Your task to perform on an android device: When is my next appointment? Image 0: 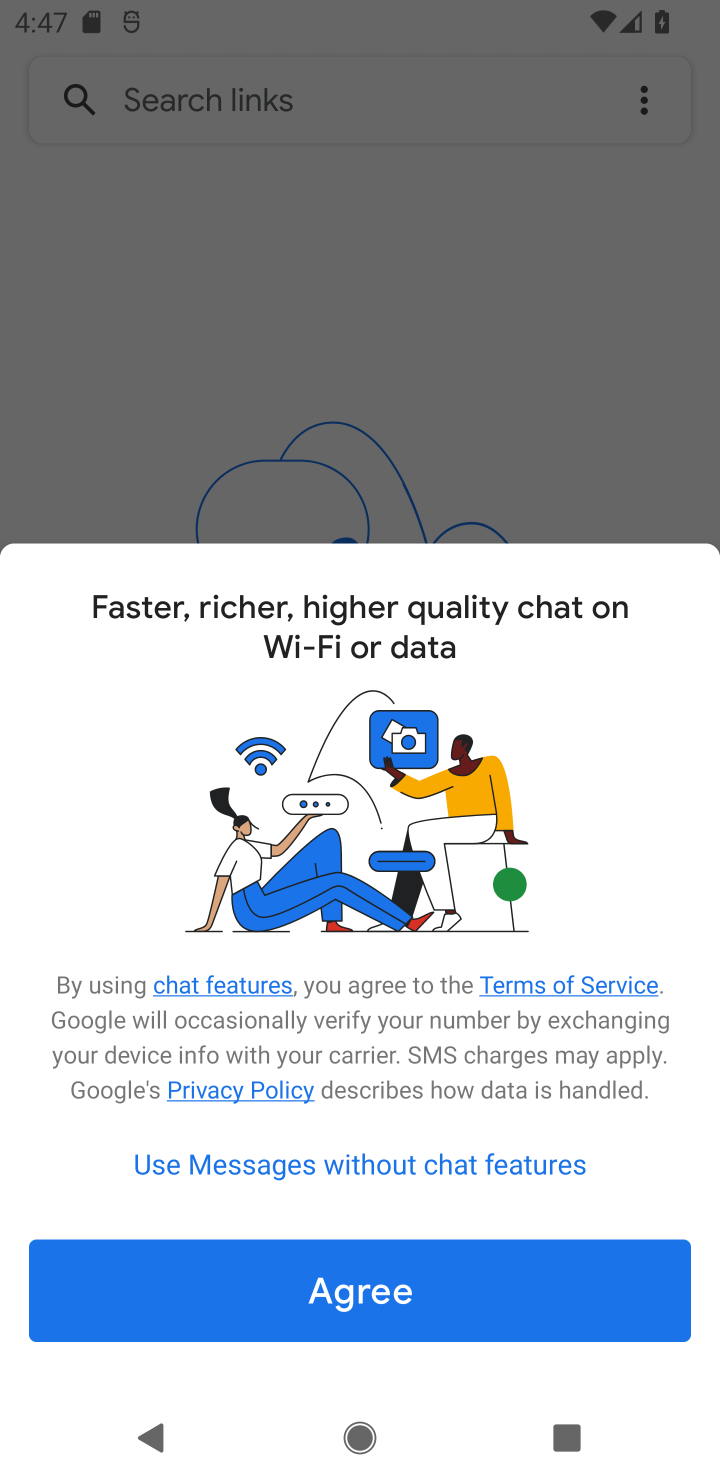
Step 0: press home button
Your task to perform on an android device: When is my next appointment? Image 1: 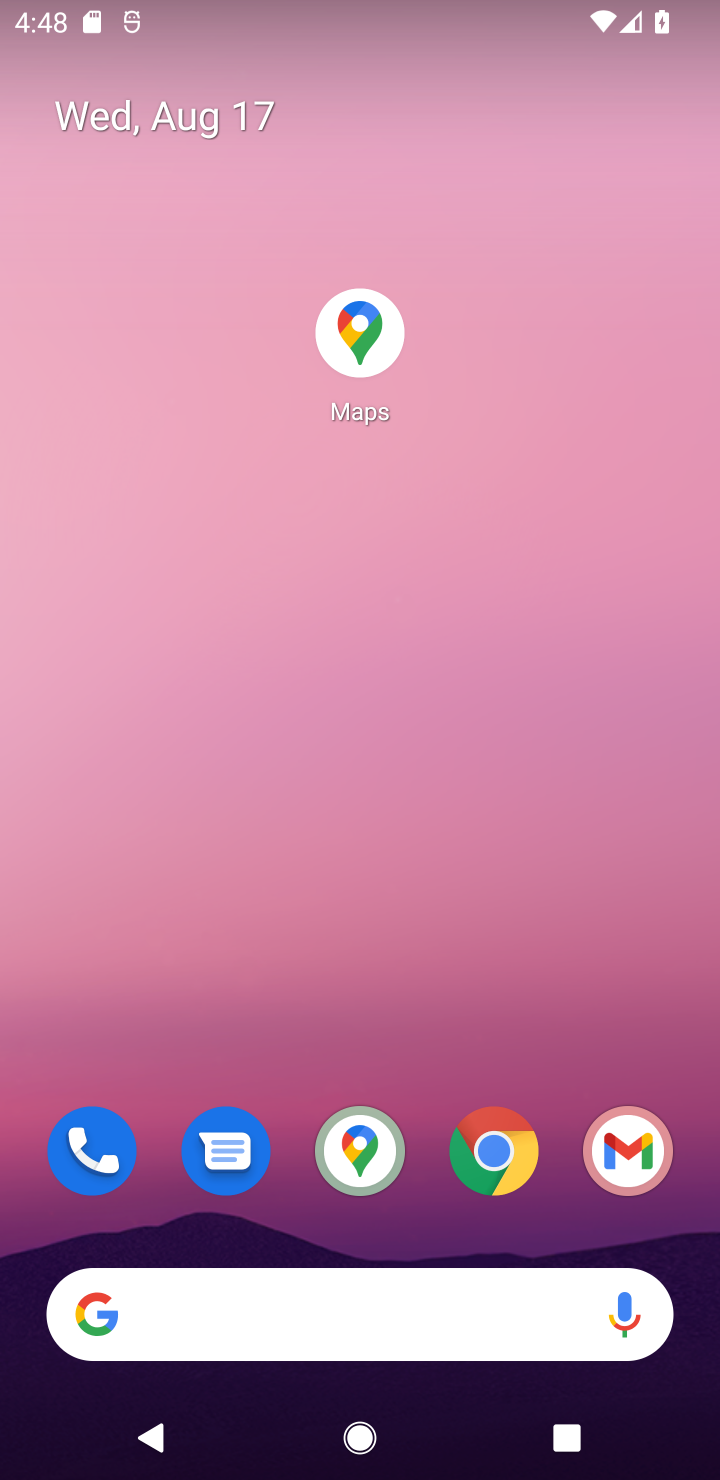
Step 1: drag from (373, 1185) to (544, 155)
Your task to perform on an android device: When is my next appointment? Image 2: 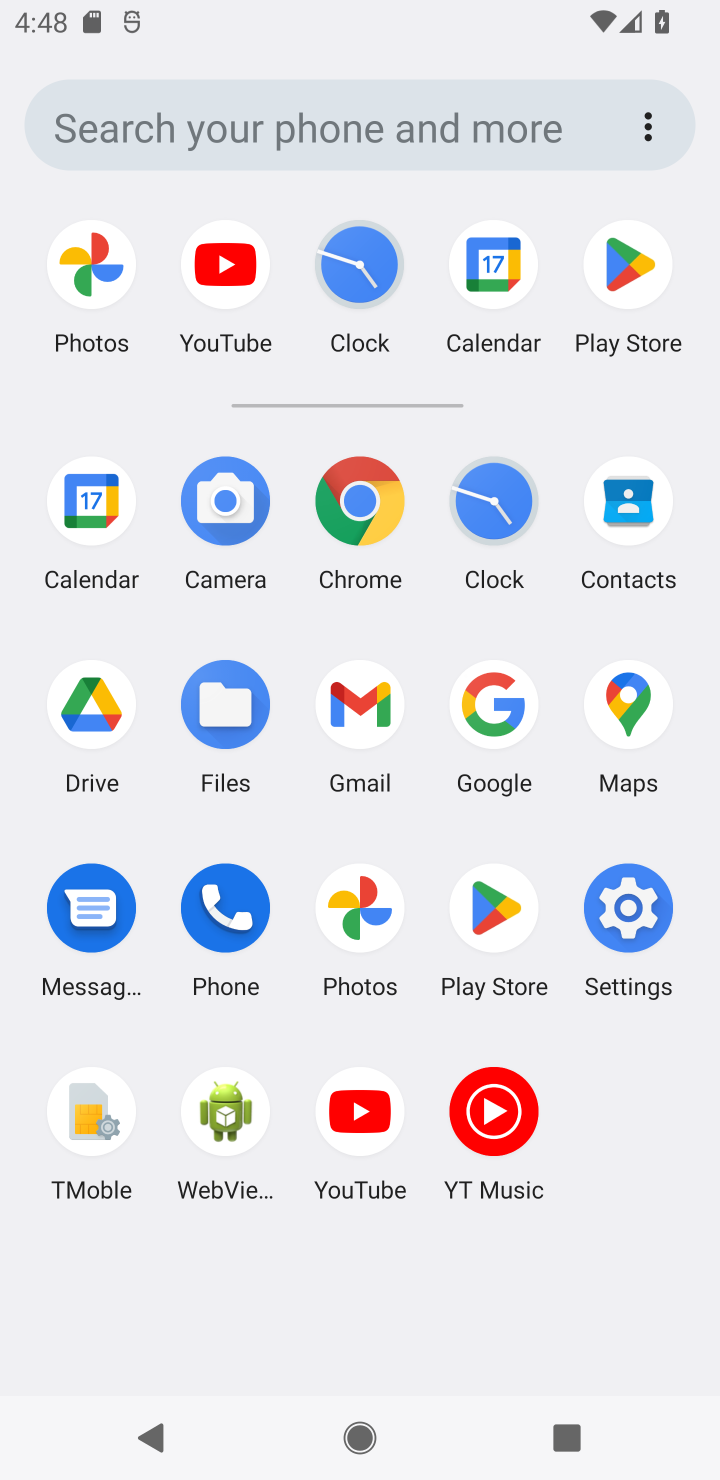
Step 2: click (472, 229)
Your task to perform on an android device: When is my next appointment? Image 3: 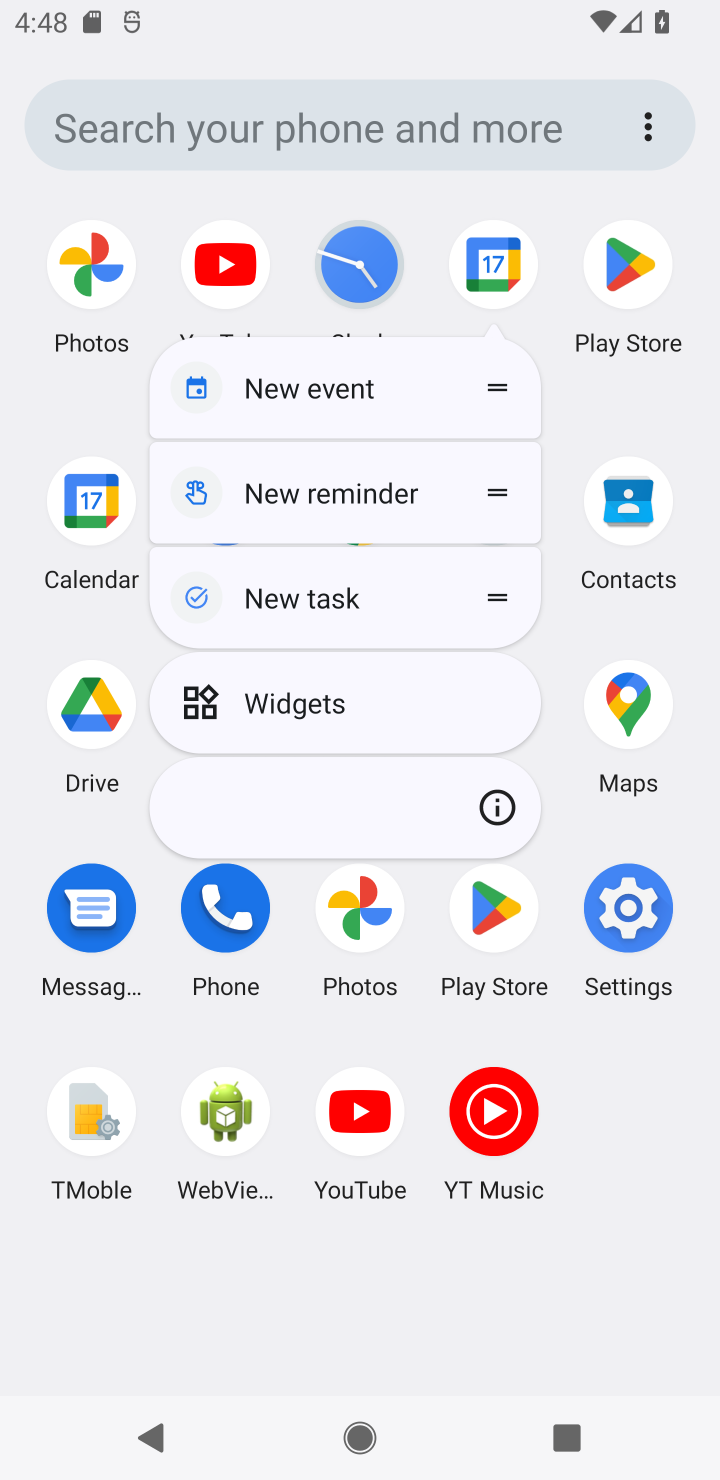
Step 3: click (492, 269)
Your task to perform on an android device: When is my next appointment? Image 4: 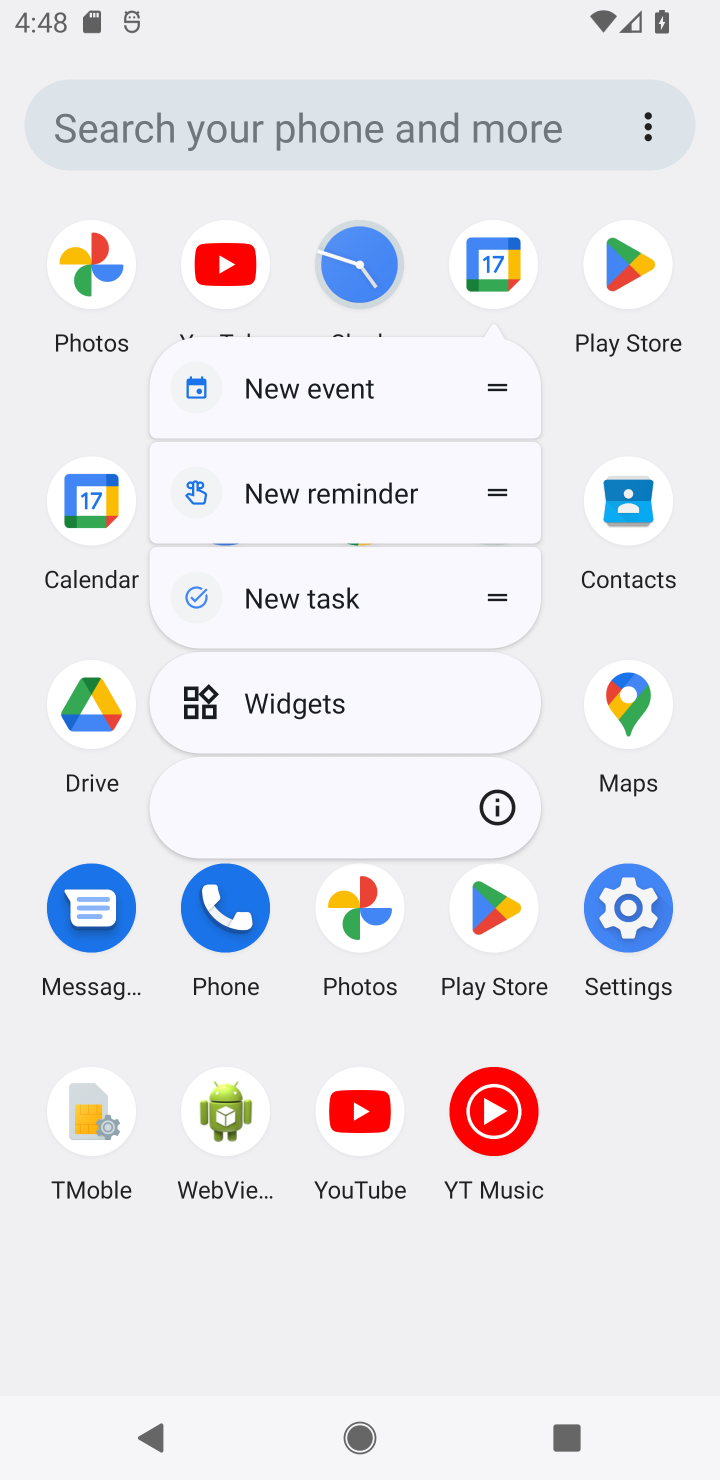
Step 4: click (492, 269)
Your task to perform on an android device: When is my next appointment? Image 5: 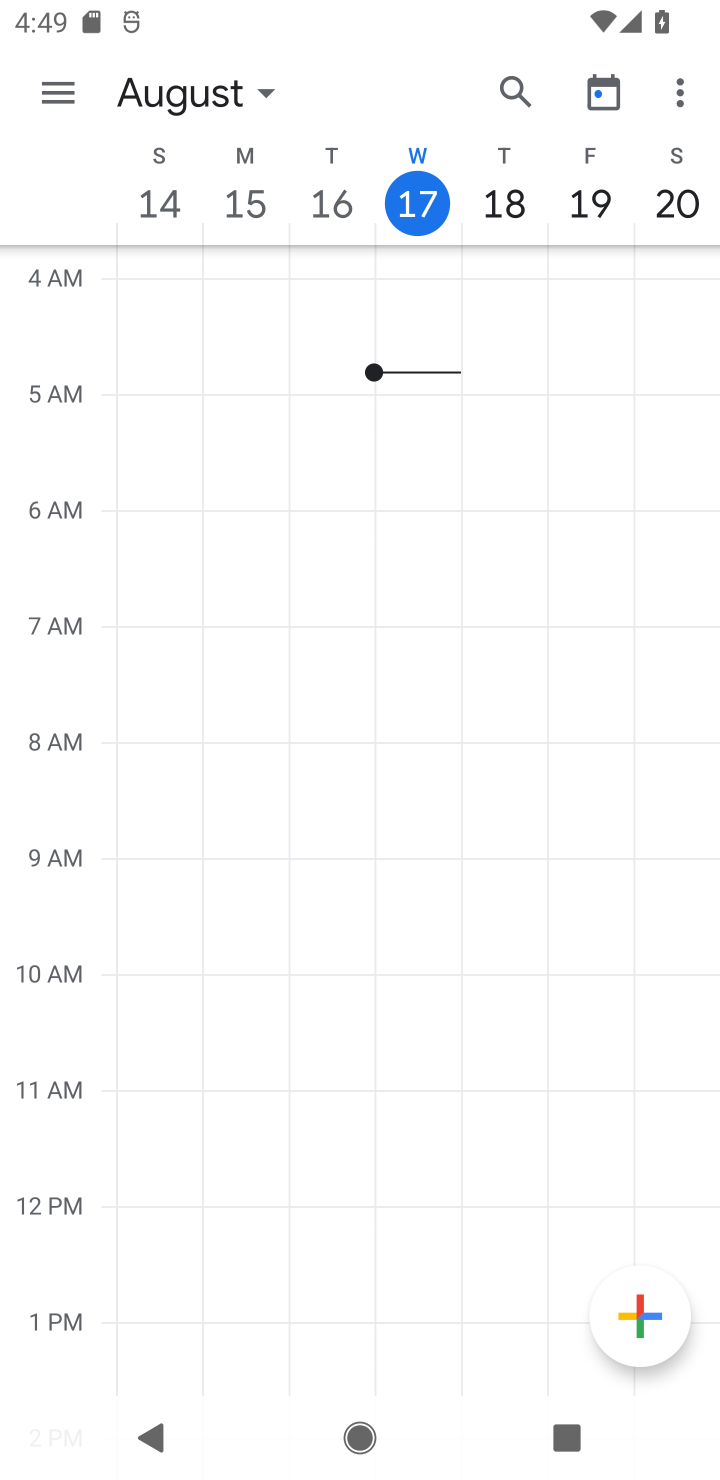
Step 5: click (30, 88)
Your task to perform on an android device: When is my next appointment? Image 6: 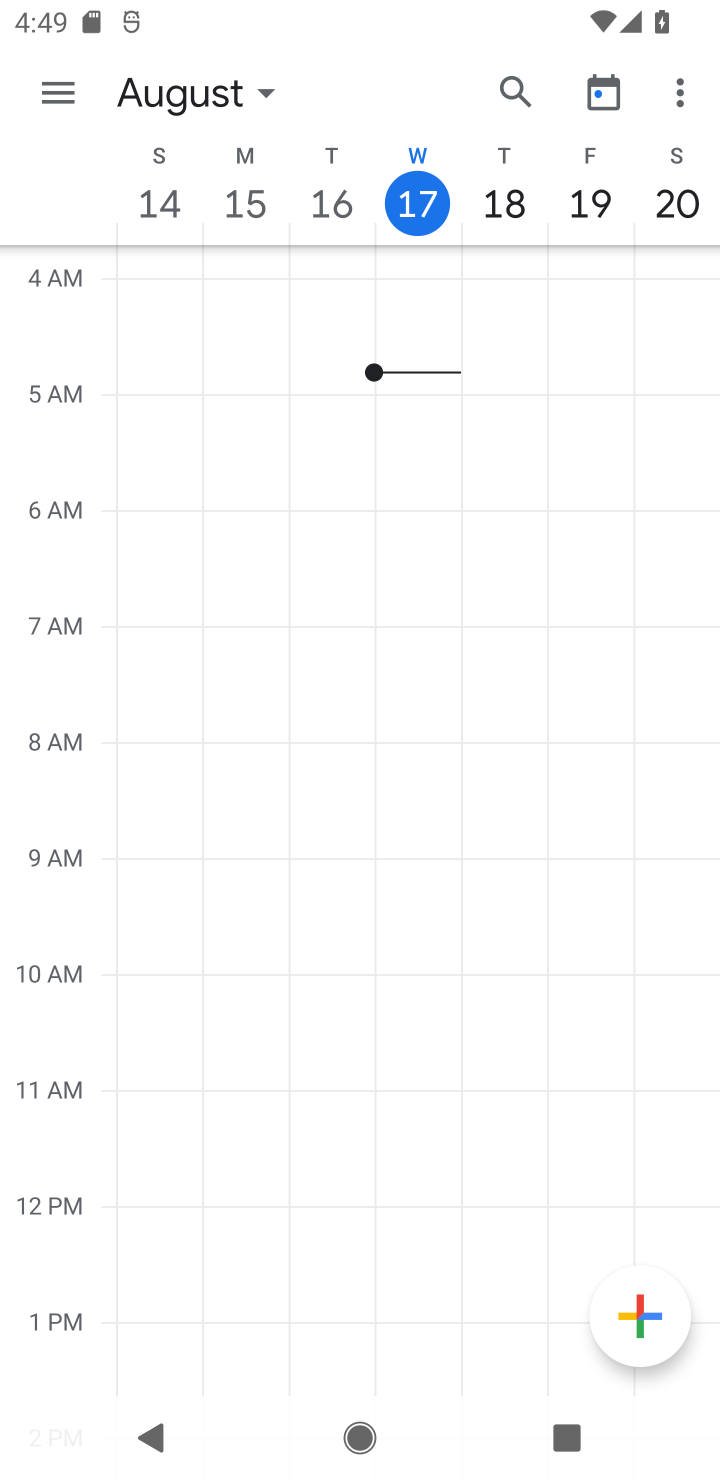
Step 6: click (67, 85)
Your task to perform on an android device: When is my next appointment? Image 7: 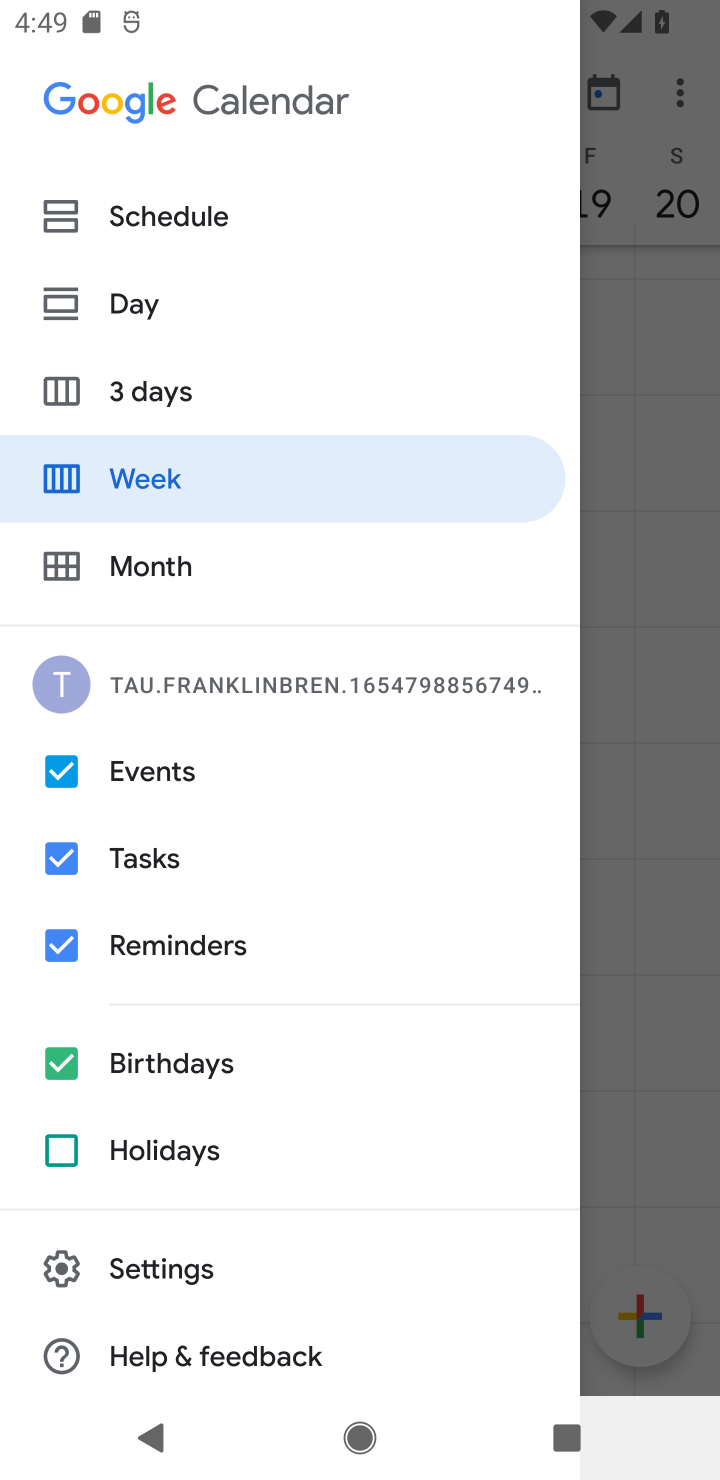
Step 7: click (238, 466)
Your task to perform on an android device: When is my next appointment? Image 8: 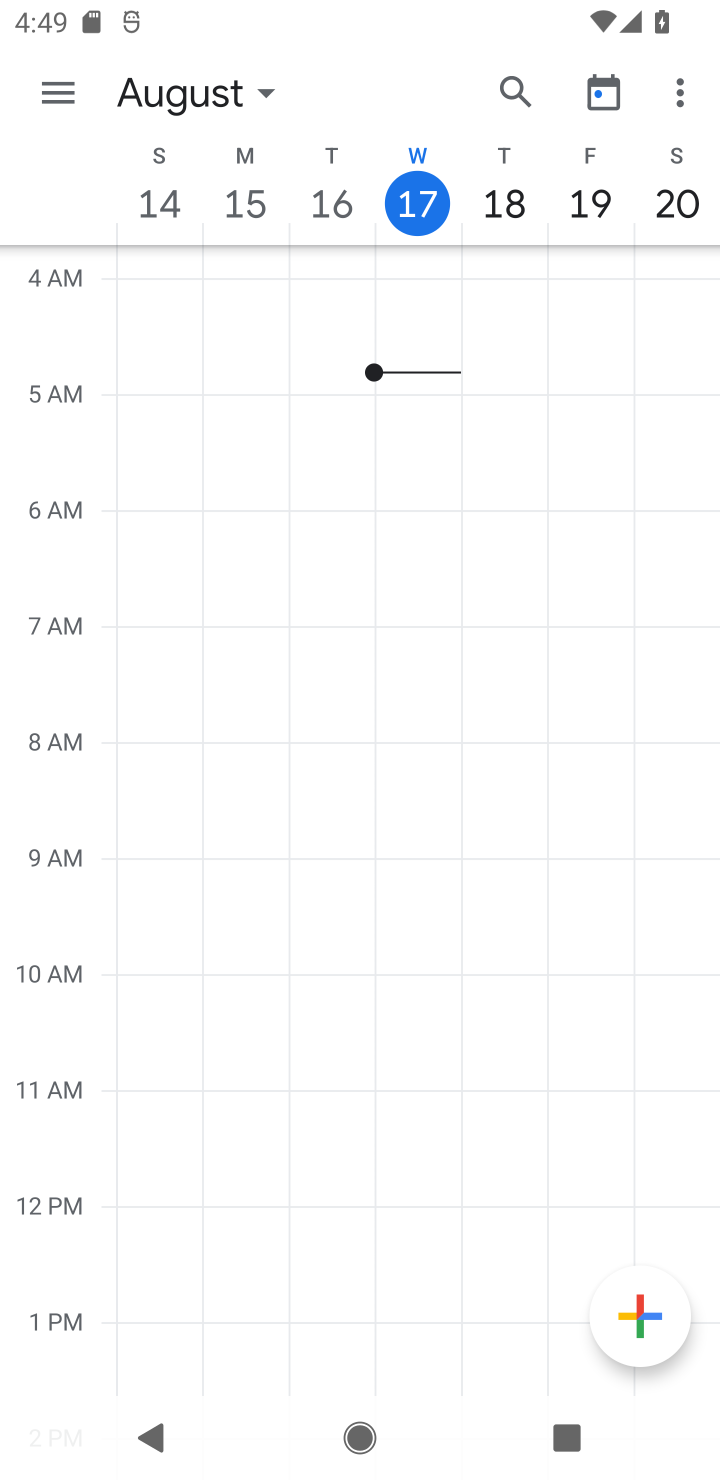
Step 8: click (513, 204)
Your task to perform on an android device: When is my next appointment? Image 9: 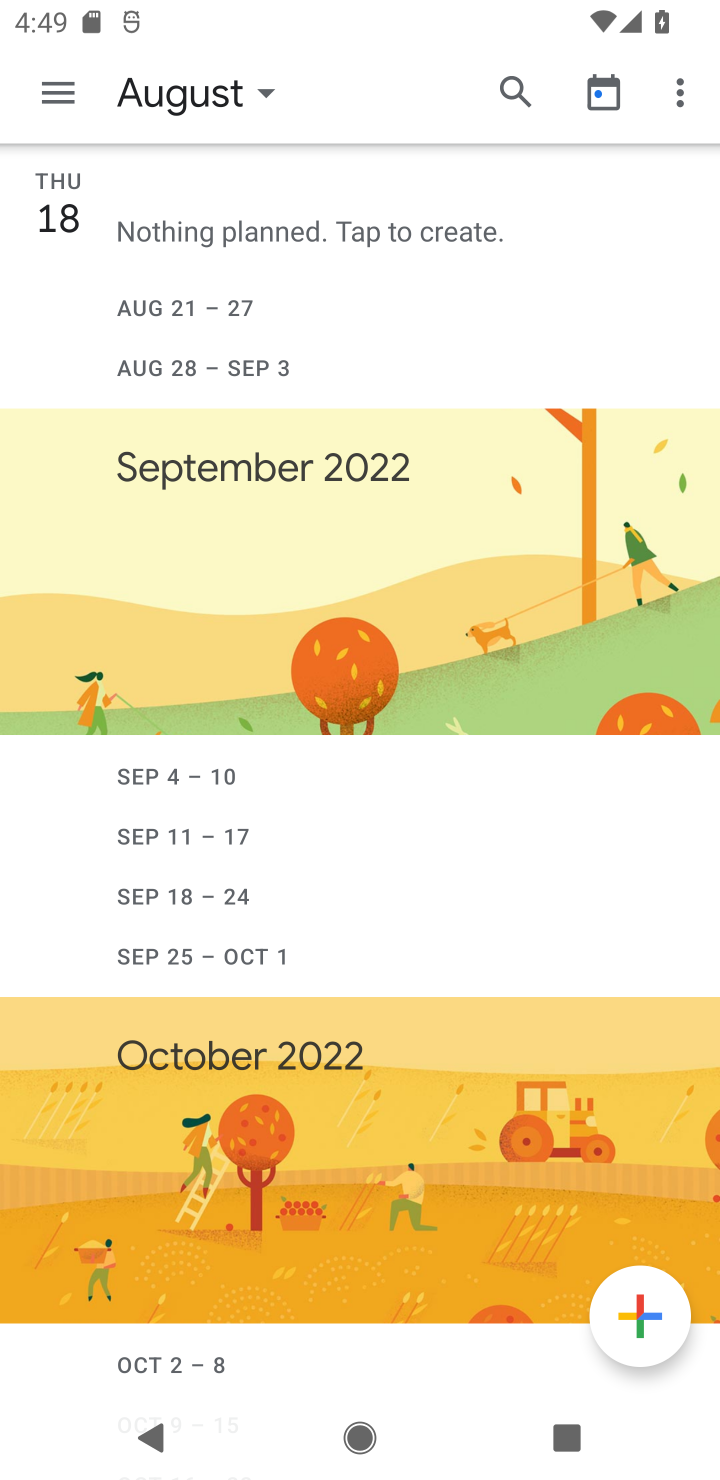
Step 9: task complete